Your task to perform on an android device: find snoozed emails in the gmail app Image 0: 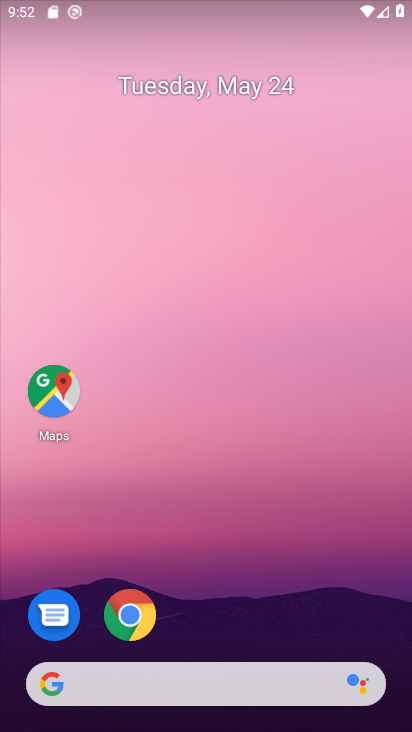
Step 0: drag from (388, 615) to (362, 259)
Your task to perform on an android device: find snoozed emails in the gmail app Image 1: 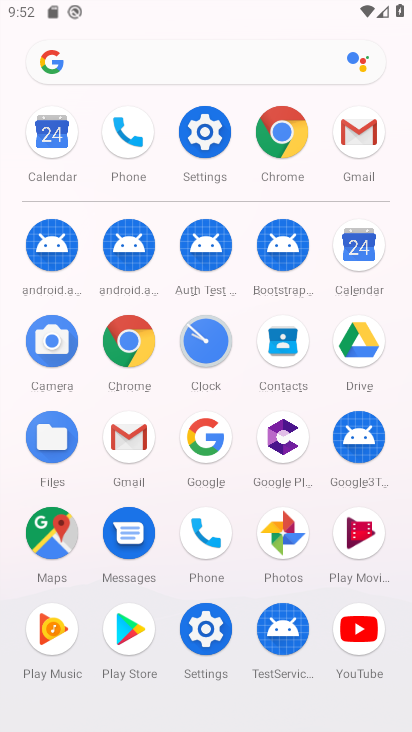
Step 1: click (136, 428)
Your task to perform on an android device: find snoozed emails in the gmail app Image 2: 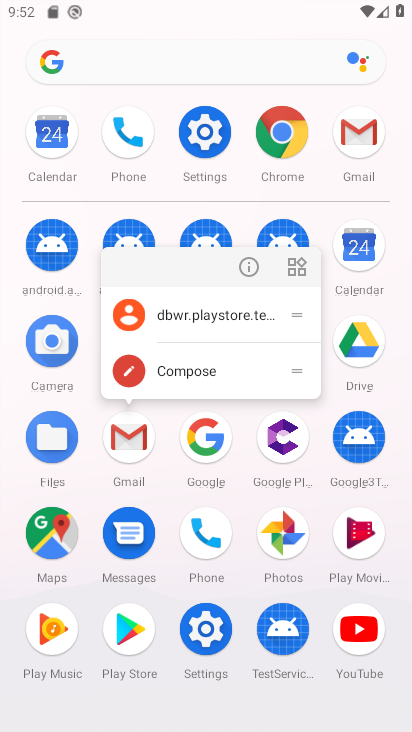
Step 2: click (136, 428)
Your task to perform on an android device: find snoozed emails in the gmail app Image 3: 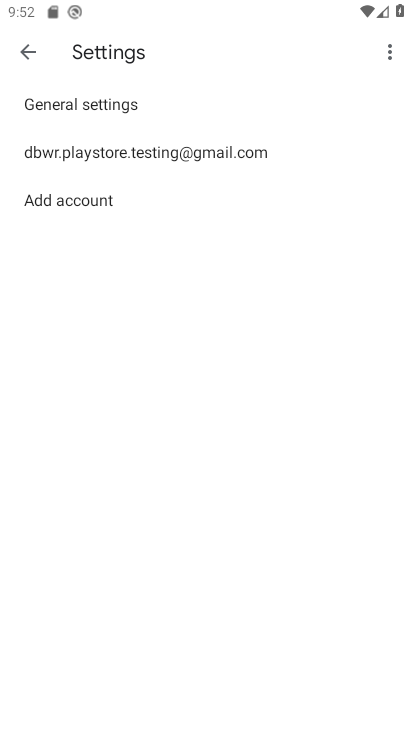
Step 3: press back button
Your task to perform on an android device: find snoozed emails in the gmail app Image 4: 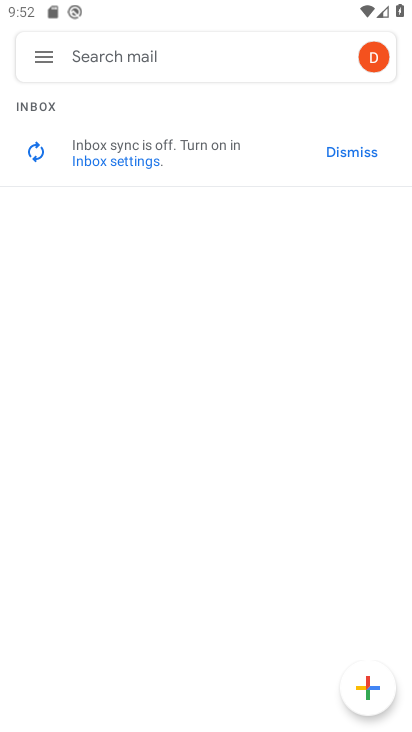
Step 4: click (33, 61)
Your task to perform on an android device: find snoozed emails in the gmail app Image 5: 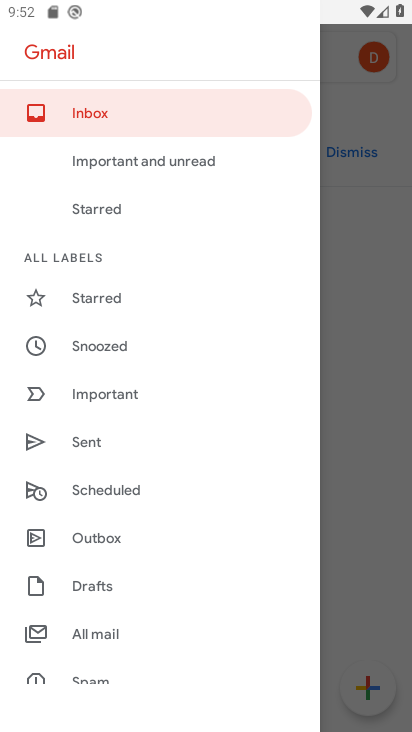
Step 5: drag from (240, 576) to (246, 458)
Your task to perform on an android device: find snoozed emails in the gmail app Image 6: 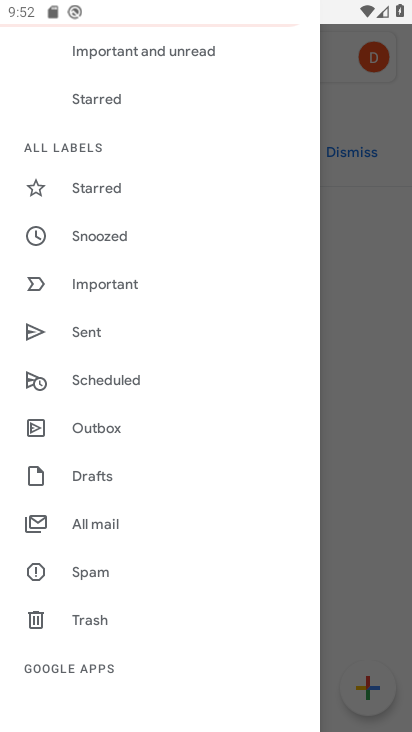
Step 6: drag from (252, 596) to (260, 471)
Your task to perform on an android device: find snoozed emails in the gmail app Image 7: 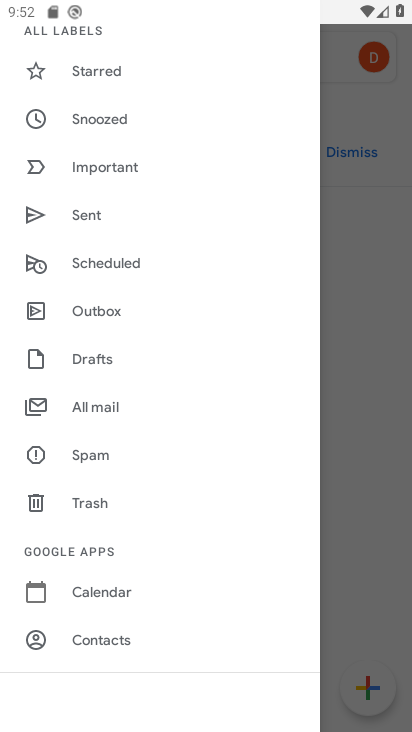
Step 7: drag from (269, 620) to (266, 467)
Your task to perform on an android device: find snoozed emails in the gmail app Image 8: 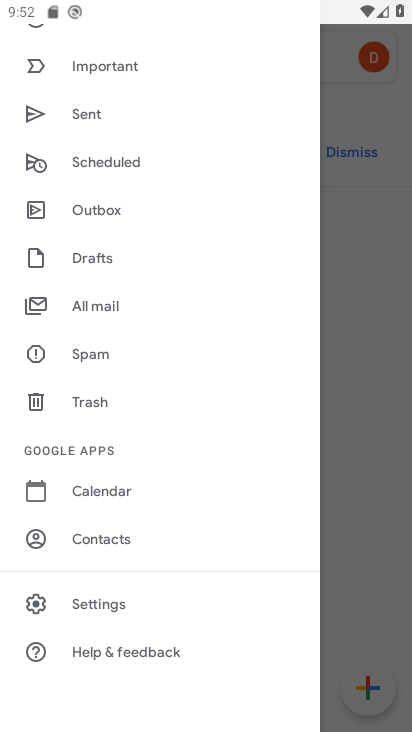
Step 8: drag from (263, 615) to (256, 464)
Your task to perform on an android device: find snoozed emails in the gmail app Image 9: 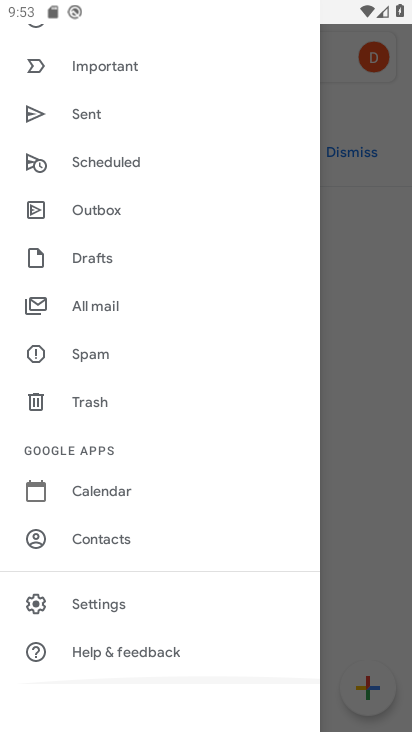
Step 9: drag from (253, 358) to (253, 450)
Your task to perform on an android device: find snoozed emails in the gmail app Image 10: 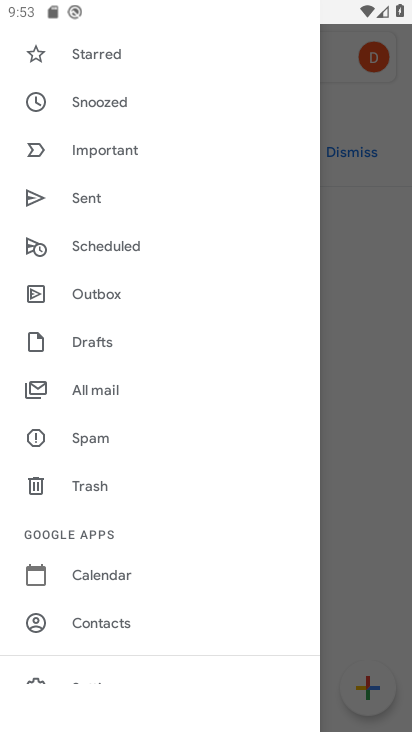
Step 10: drag from (244, 330) to (254, 418)
Your task to perform on an android device: find snoozed emails in the gmail app Image 11: 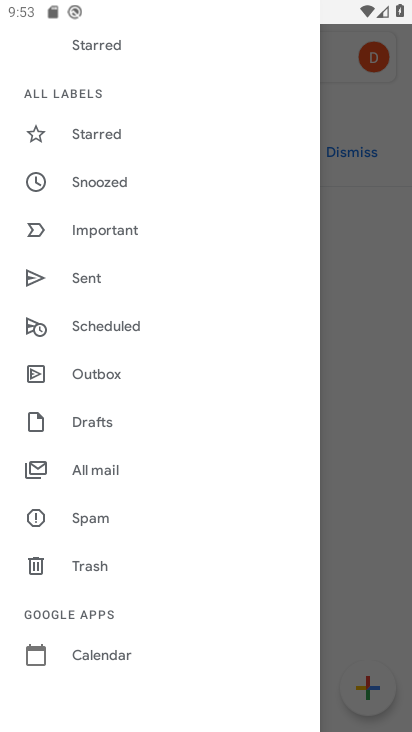
Step 11: drag from (245, 296) to (243, 384)
Your task to perform on an android device: find snoozed emails in the gmail app Image 12: 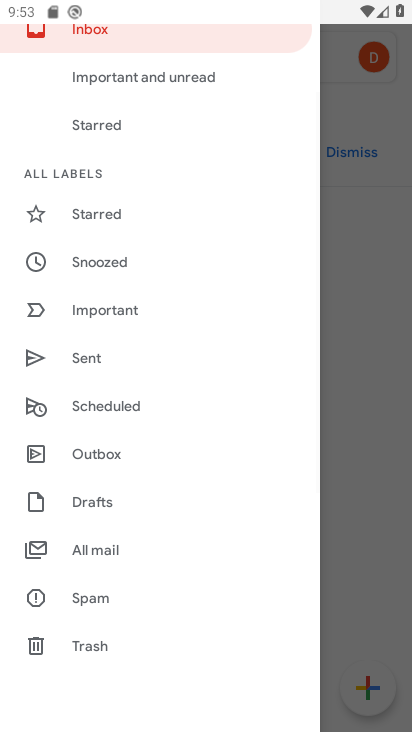
Step 12: drag from (235, 290) to (228, 404)
Your task to perform on an android device: find snoozed emails in the gmail app Image 13: 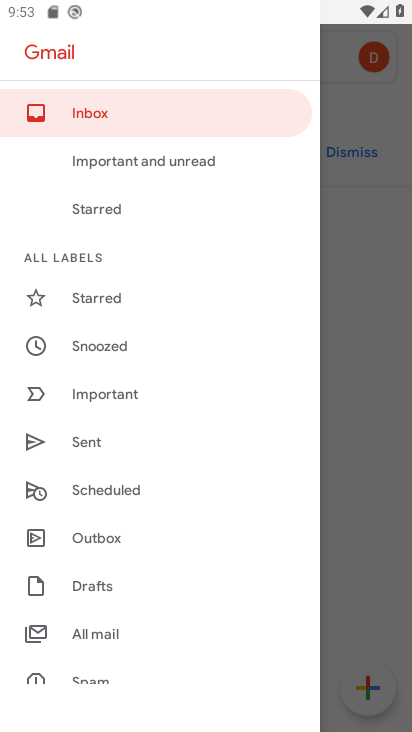
Step 13: click (221, 387)
Your task to perform on an android device: find snoozed emails in the gmail app Image 14: 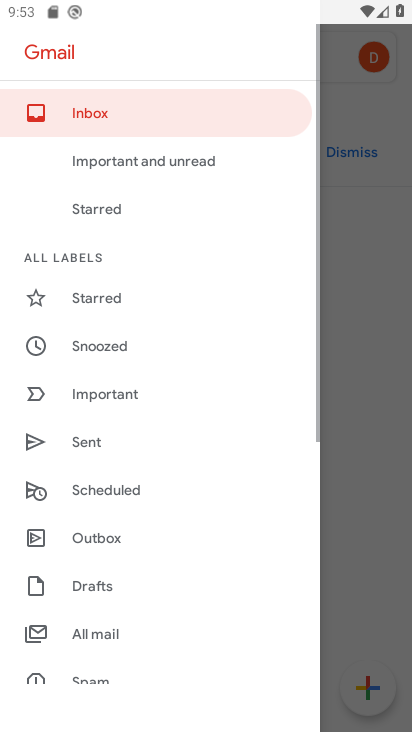
Step 14: click (143, 349)
Your task to perform on an android device: find snoozed emails in the gmail app Image 15: 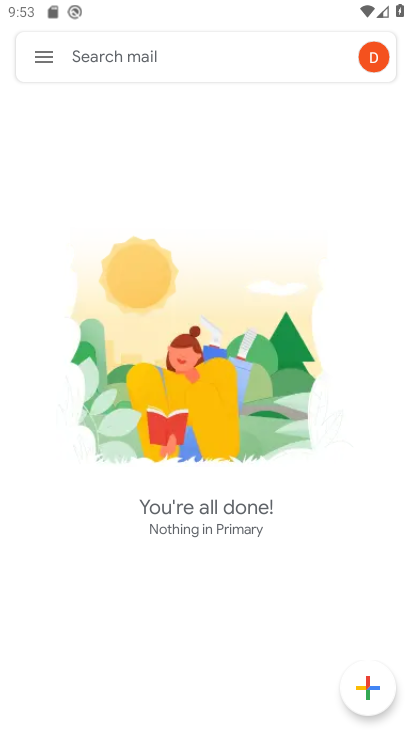
Step 15: task complete